Your task to perform on an android device: Go to wifi settings Image 0: 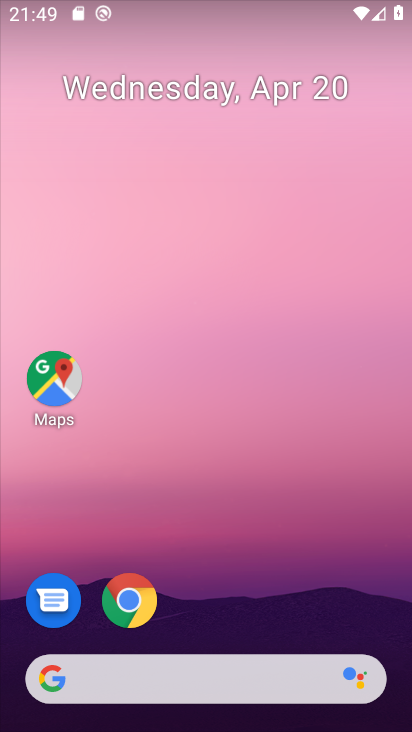
Step 0: drag from (313, 594) to (303, 142)
Your task to perform on an android device: Go to wifi settings Image 1: 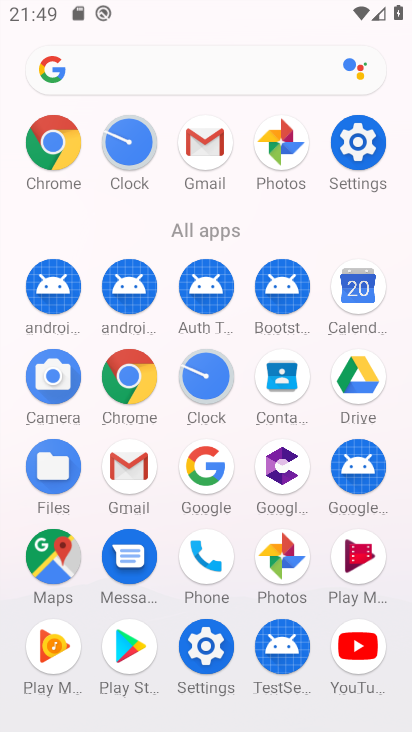
Step 1: click (359, 153)
Your task to perform on an android device: Go to wifi settings Image 2: 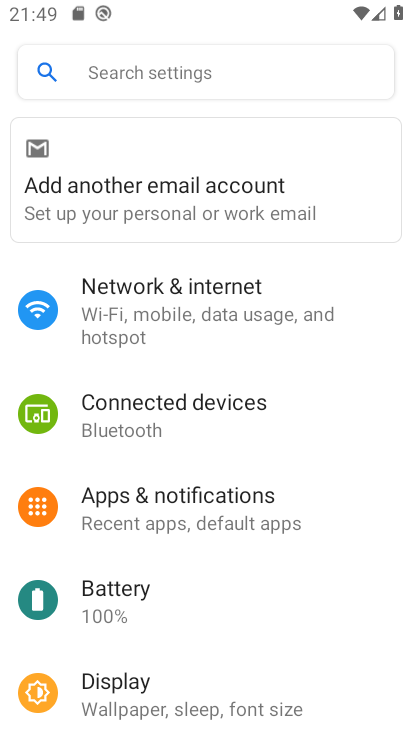
Step 2: click (148, 314)
Your task to perform on an android device: Go to wifi settings Image 3: 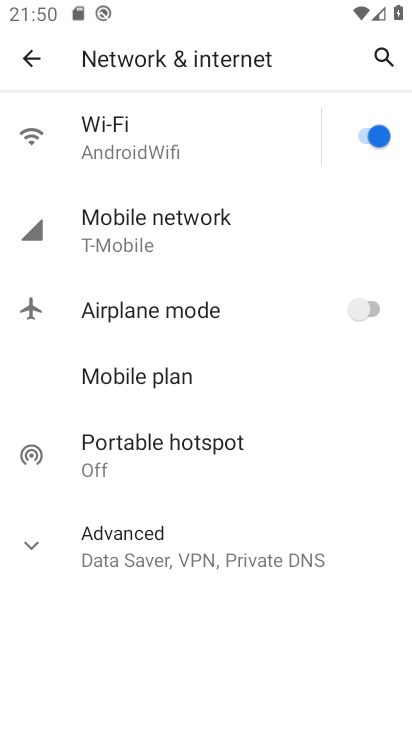
Step 3: click (177, 135)
Your task to perform on an android device: Go to wifi settings Image 4: 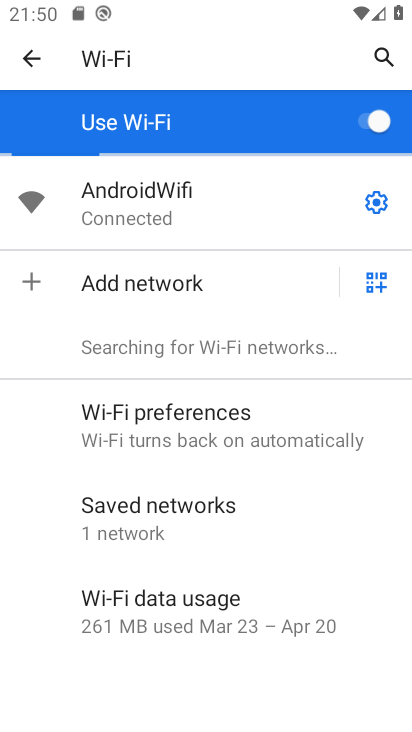
Step 4: task complete